Your task to perform on an android device: Search for Italian restaurants on Maps Image 0: 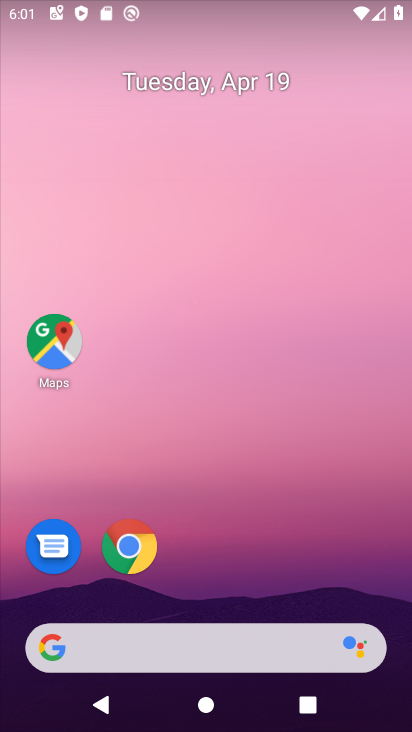
Step 0: drag from (300, 556) to (300, 65)
Your task to perform on an android device: Search for Italian restaurants on Maps Image 1: 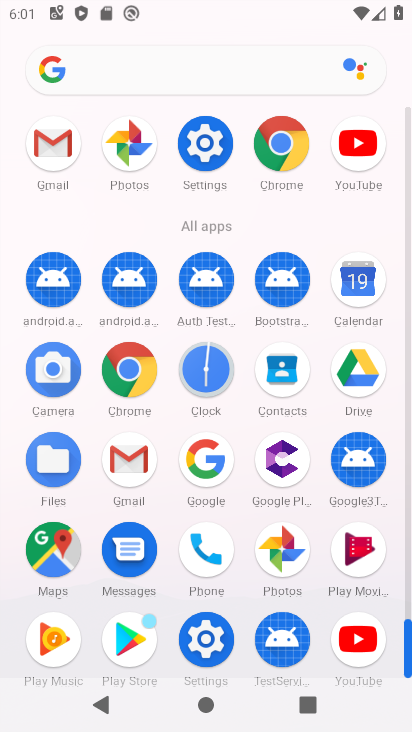
Step 1: click (50, 549)
Your task to perform on an android device: Search for Italian restaurants on Maps Image 2: 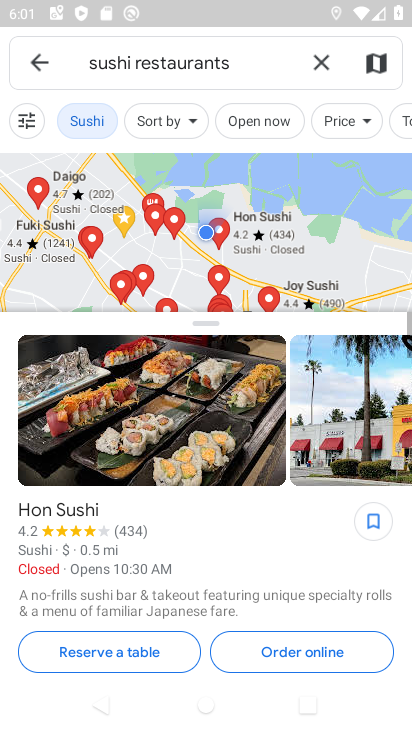
Step 2: click (279, 80)
Your task to perform on an android device: Search for Italian restaurants on Maps Image 3: 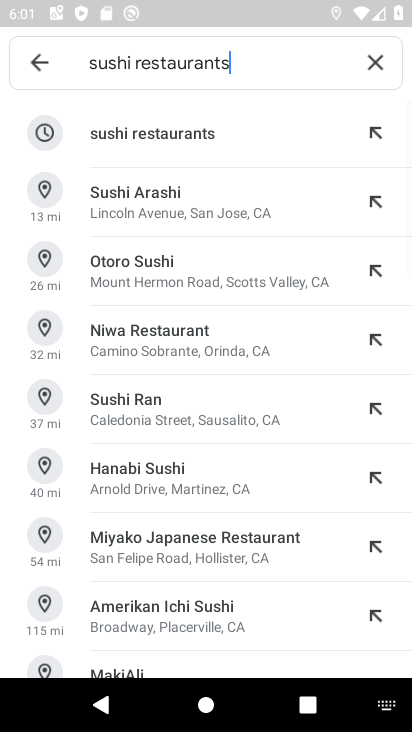
Step 3: click (375, 62)
Your task to perform on an android device: Search for Italian restaurants on Maps Image 4: 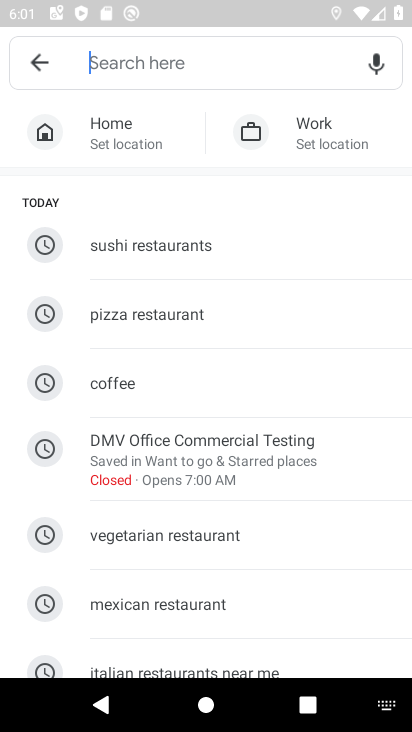
Step 4: type "Italian restaurants"
Your task to perform on an android device: Search for Italian restaurants on Maps Image 5: 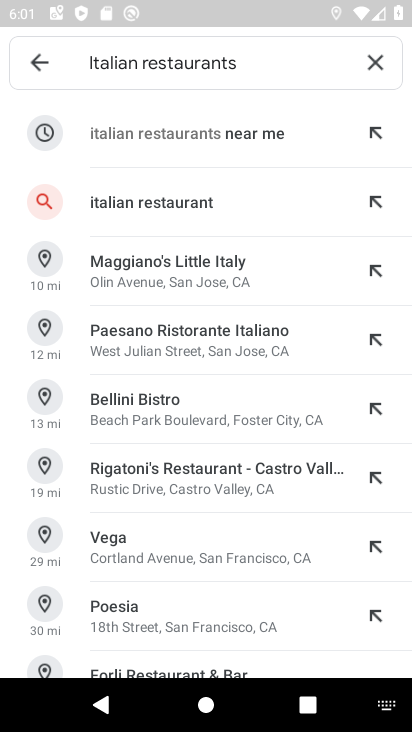
Step 5: press enter
Your task to perform on an android device: Search for Italian restaurants on Maps Image 6: 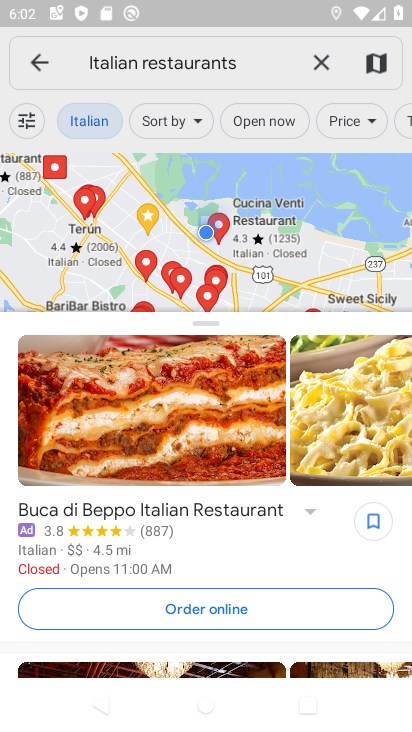
Step 6: task complete